Your task to perform on an android device: add a contact in the contacts app Image 0: 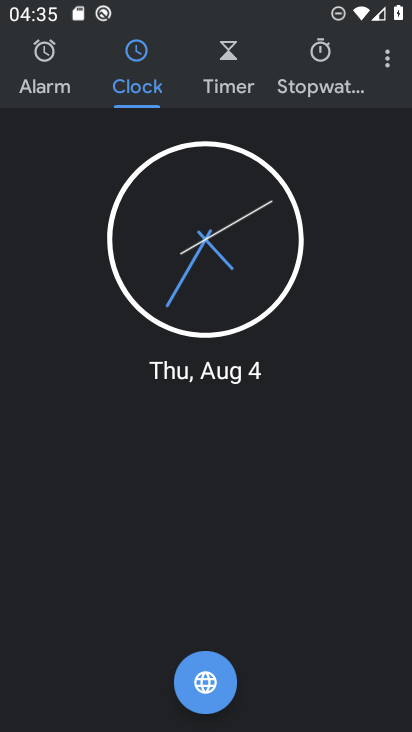
Step 0: press home button
Your task to perform on an android device: add a contact in the contacts app Image 1: 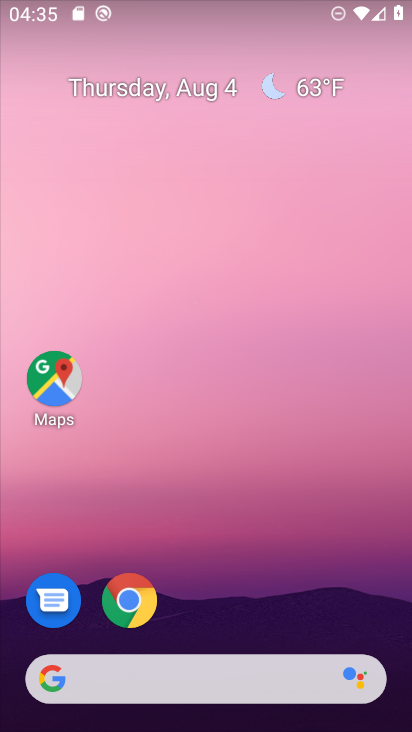
Step 1: drag from (253, 573) to (332, 54)
Your task to perform on an android device: add a contact in the contacts app Image 2: 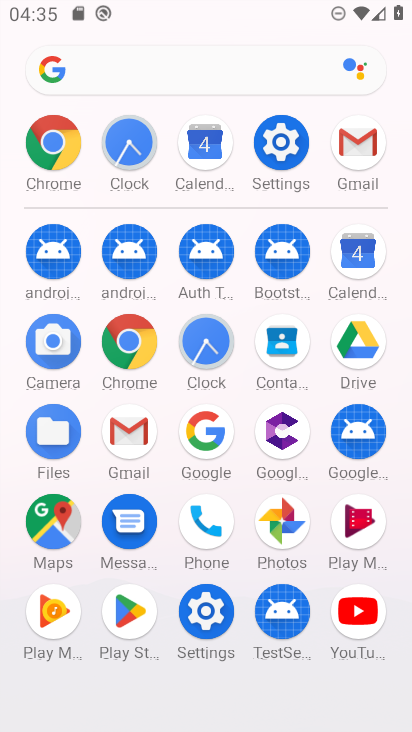
Step 2: click (286, 340)
Your task to perform on an android device: add a contact in the contacts app Image 3: 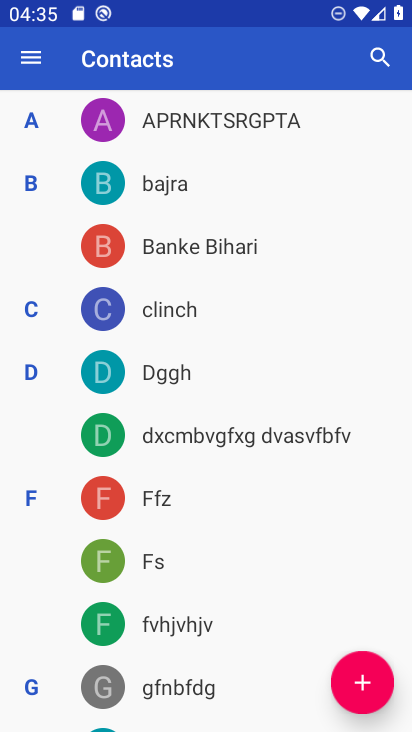
Step 3: click (354, 685)
Your task to perform on an android device: add a contact in the contacts app Image 4: 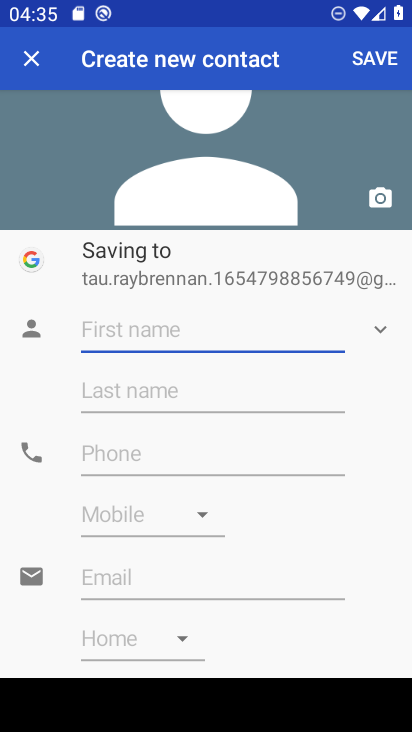
Step 4: type "kashir"
Your task to perform on an android device: add a contact in the contacts app Image 5: 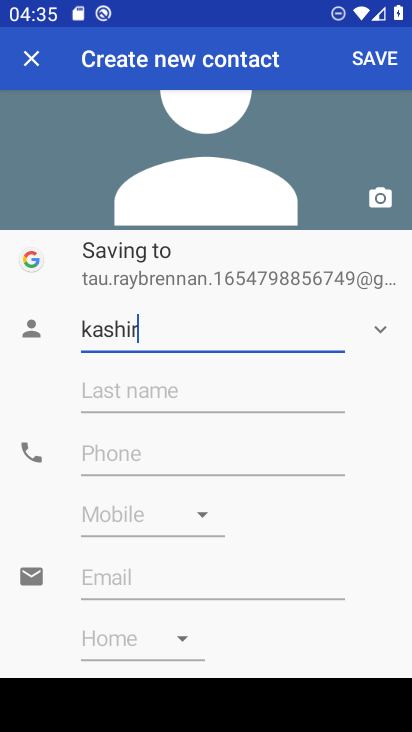
Step 5: click (373, 49)
Your task to perform on an android device: add a contact in the contacts app Image 6: 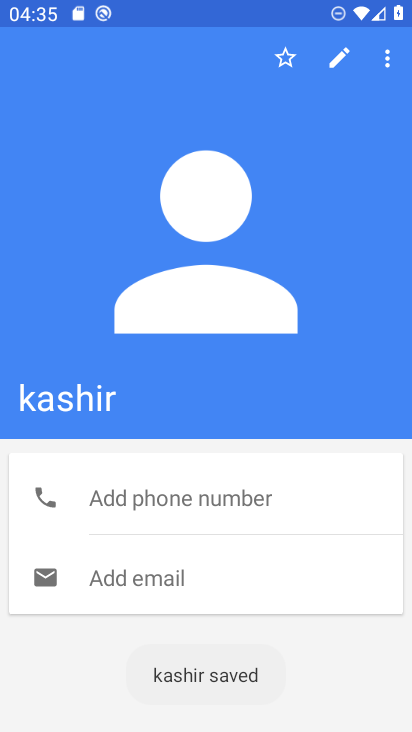
Step 6: task complete